Your task to perform on an android device: Go to ESPN.com Image 0: 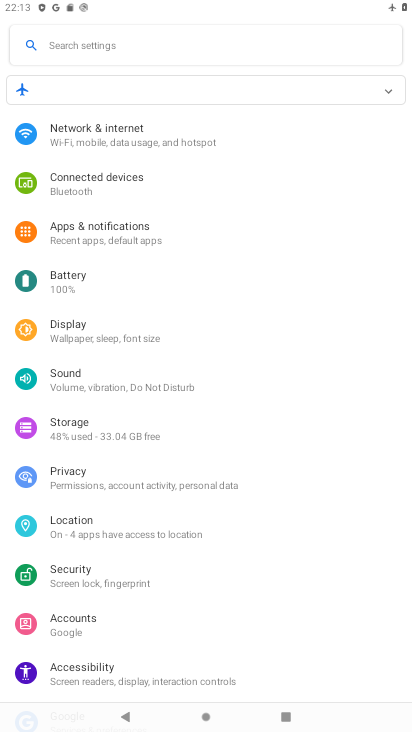
Step 0: press back button
Your task to perform on an android device: Go to ESPN.com Image 1: 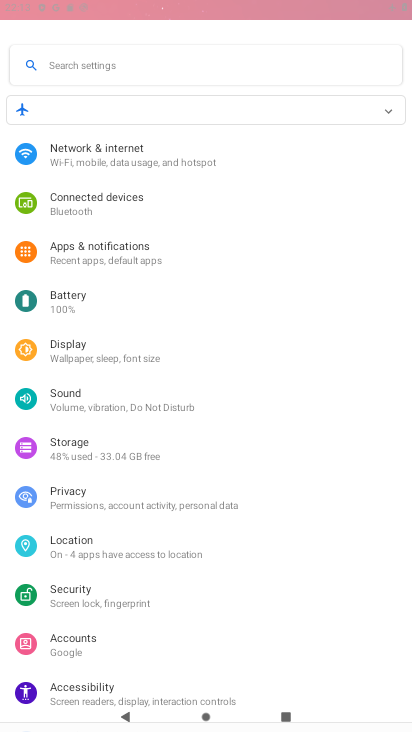
Step 1: press back button
Your task to perform on an android device: Go to ESPN.com Image 2: 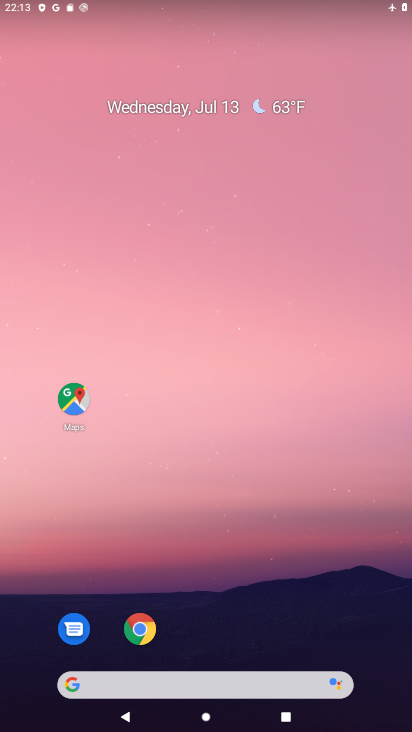
Step 2: drag from (274, 598) to (207, 222)
Your task to perform on an android device: Go to ESPN.com Image 3: 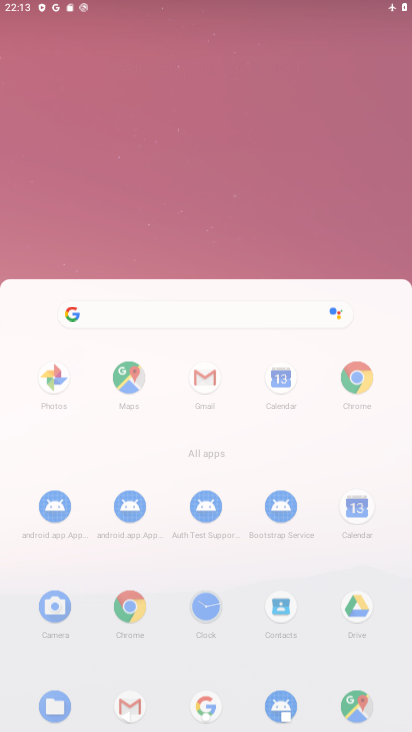
Step 3: drag from (278, 517) to (231, 137)
Your task to perform on an android device: Go to ESPN.com Image 4: 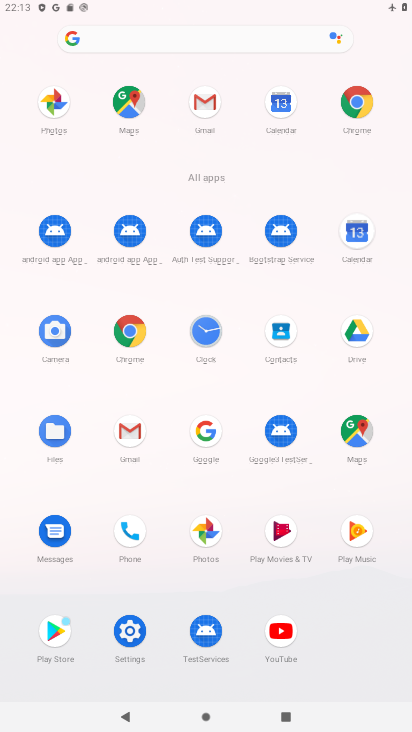
Step 4: drag from (264, 465) to (264, 263)
Your task to perform on an android device: Go to ESPN.com Image 5: 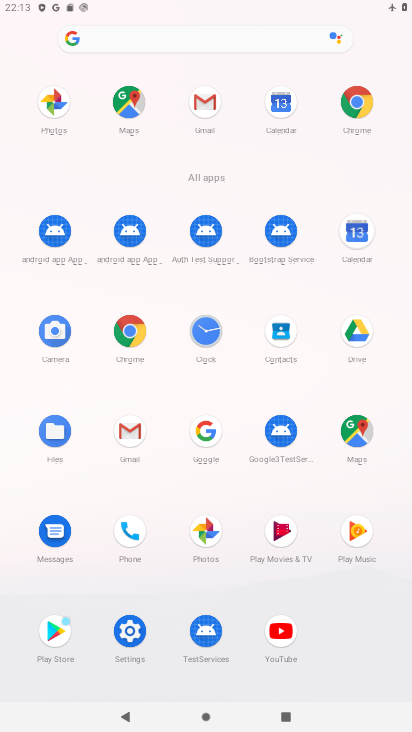
Step 5: click (364, 91)
Your task to perform on an android device: Go to ESPN.com Image 6: 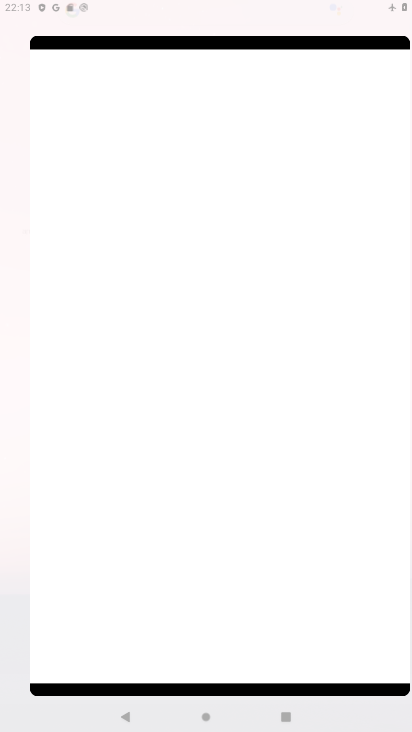
Step 6: click (365, 92)
Your task to perform on an android device: Go to ESPN.com Image 7: 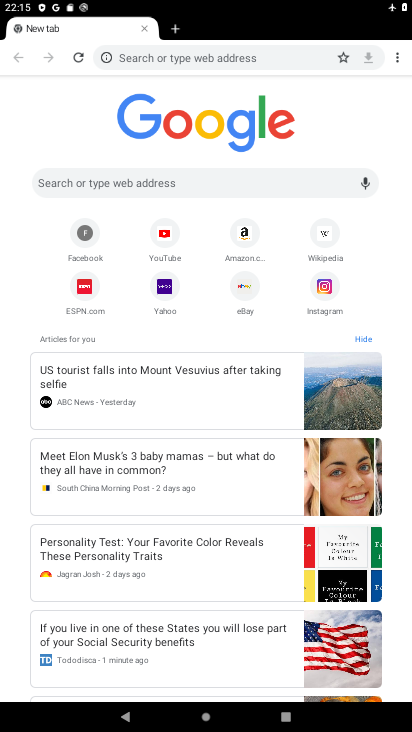
Step 7: click (89, 295)
Your task to perform on an android device: Go to ESPN.com Image 8: 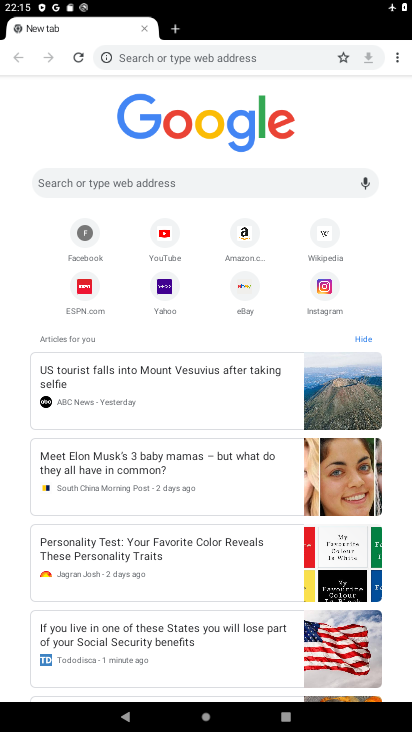
Step 8: click (89, 295)
Your task to perform on an android device: Go to ESPN.com Image 9: 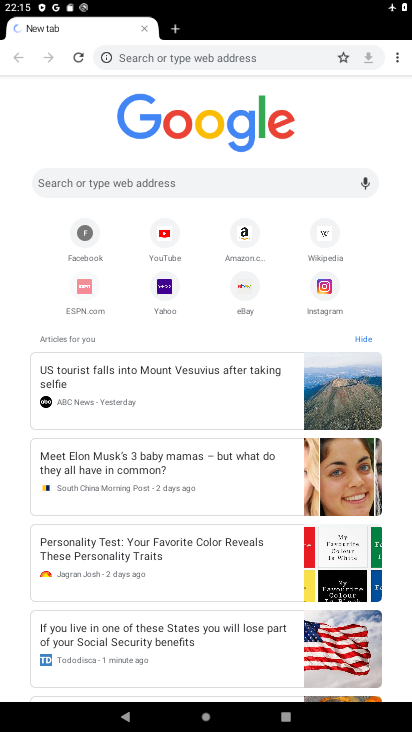
Step 9: click (89, 295)
Your task to perform on an android device: Go to ESPN.com Image 10: 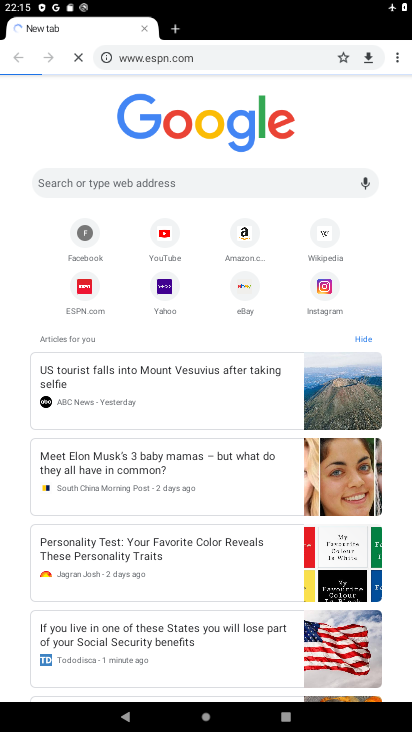
Step 10: click (89, 294)
Your task to perform on an android device: Go to ESPN.com Image 11: 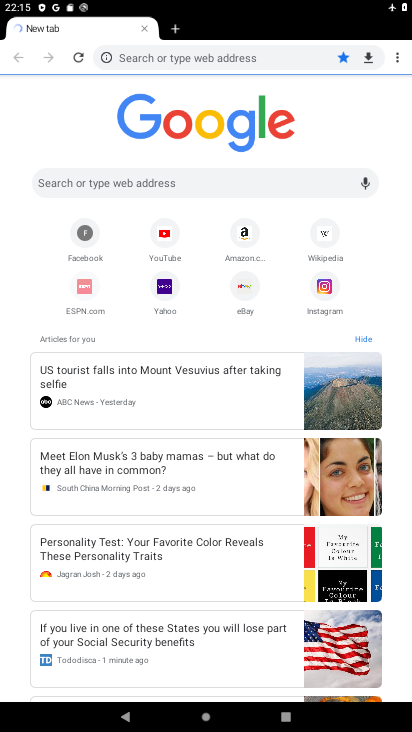
Step 11: click (89, 294)
Your task to perform on an android device: Go to ESPN.com Image 12: 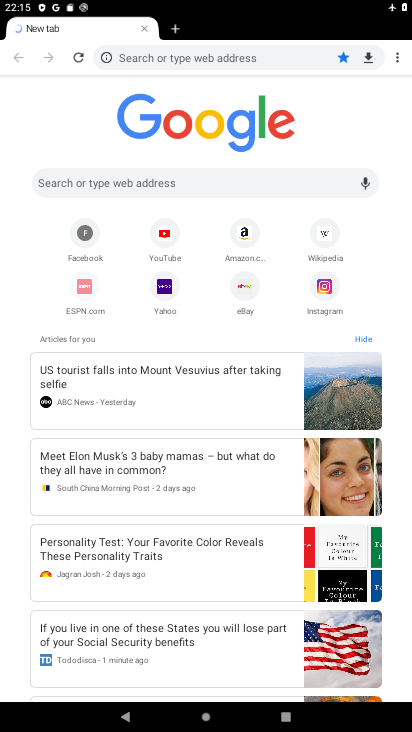
Step 12: click (85, 297)
Your task to perform on an android device: Go to ESPN.com Image 13: 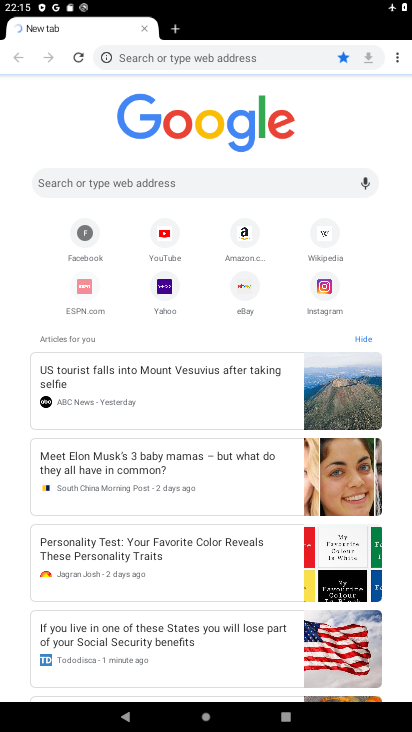
Step 13: click (98, 287)
Your task to perform on an android device: Go to ESPN.com Image 14: 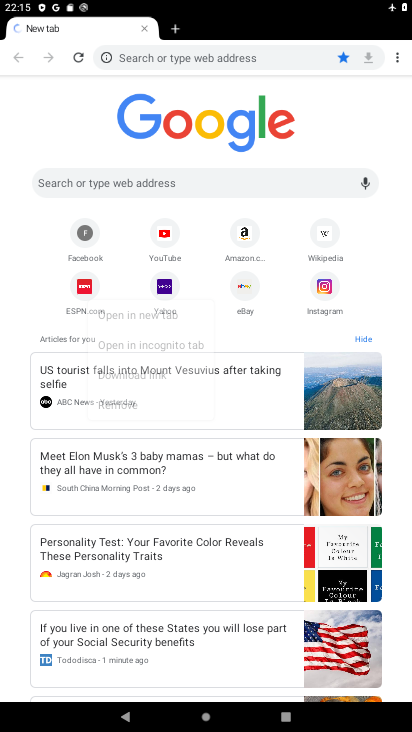
Step 14: click (93, 285)
Your task to perform on an android device: Go to ESPN.com Image 15: 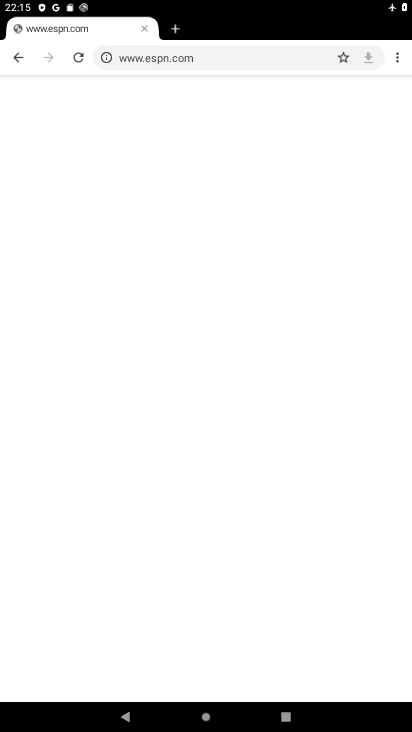
Step 15: click (91, 285)
Your task to perform on an android device: Go to ESPN.com Image 16: 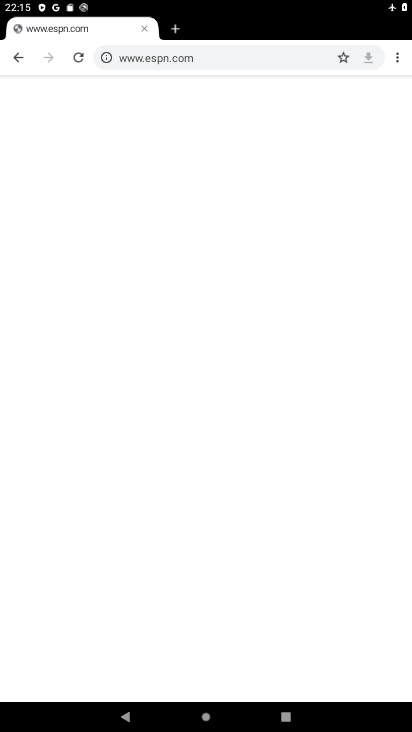
Step 16: click (91, 285)
Your task to perform on an android device: Go to ESPN.com Image 17: 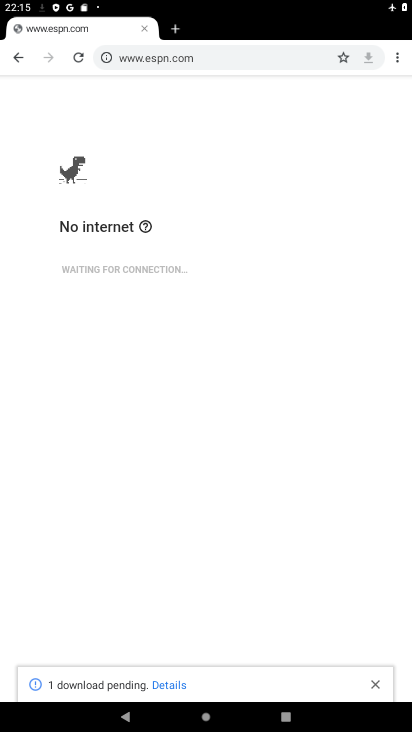
Step 17: task complete